Your task to perform on an android device: Open settings Image 0: 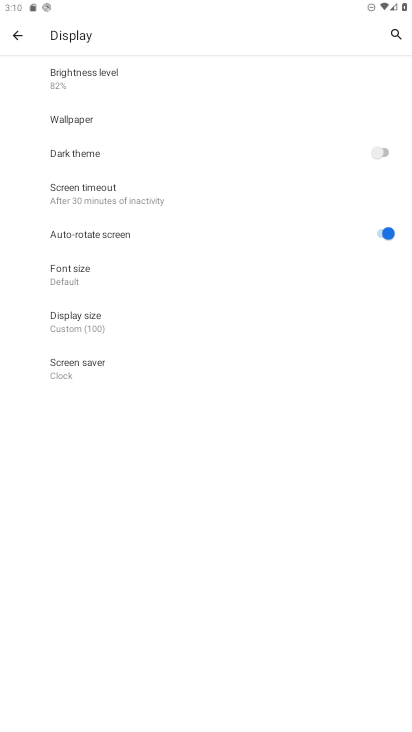
Step 0: press home button
Your task to perform on an android device: Open settings Image 1: 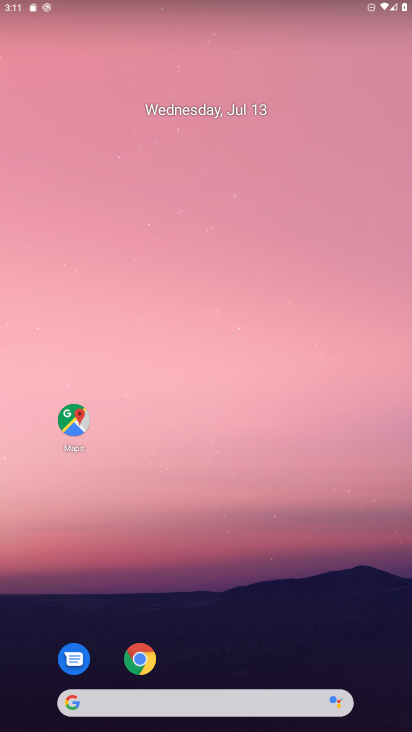
Step 1: drag from (382, 673) to (326, 128)
Your task to perform on an android device: Open settings Image 2: 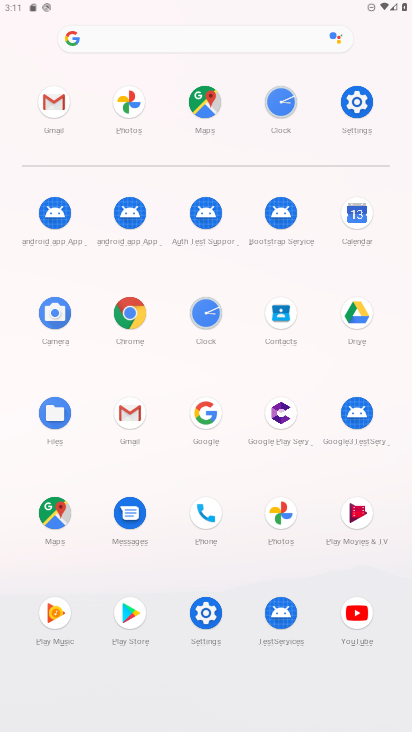
Step 2: click (202, 611)
Your task to perform on an android device: Open settings Image 3: 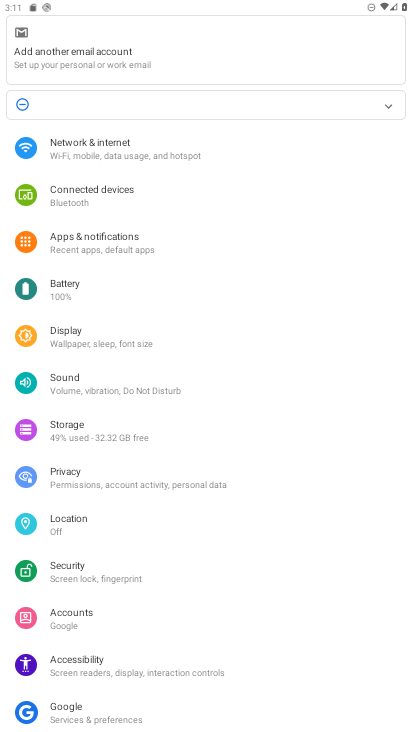
Step 3: task complete